Your task to perform on an android device: Open battery settings Image 0: 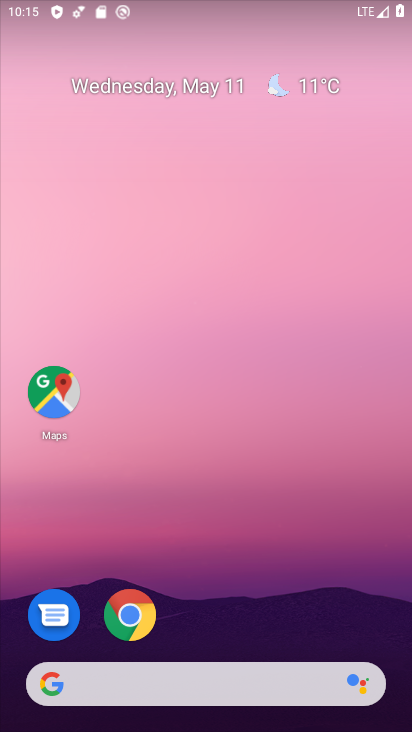
Step 0: click (310, 85)
Your task to perform on an android device: Open battery settings Image 1: 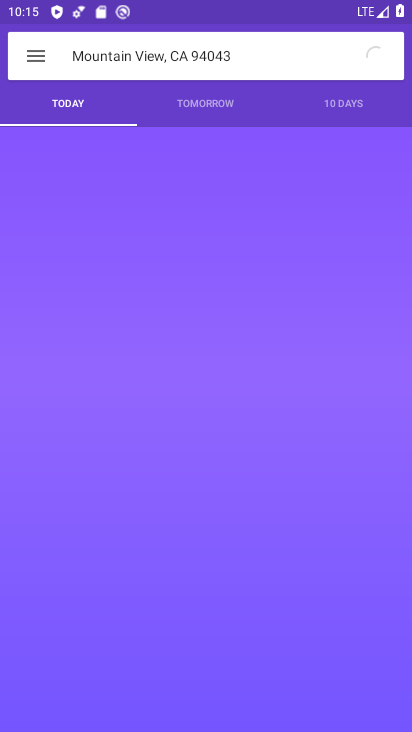
Step 1: press home button
Your task to perform on an android device: Open battery settings Image 2: 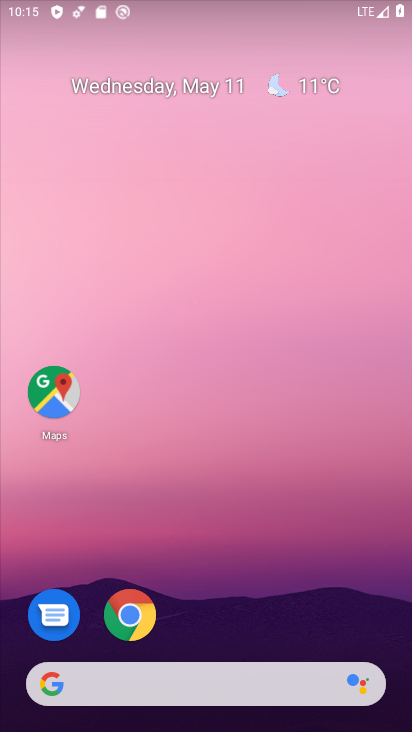
Step 2: drag from (225, 570) to (323, 120)
Your task to perform on an android device: Open battery settings Image 3: 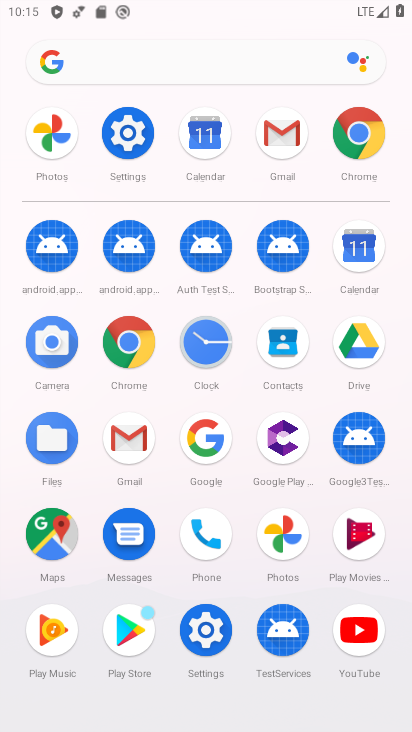
Step 3: click (130, 126)
Your task to perform on an android device: Open battery settings Image 4: 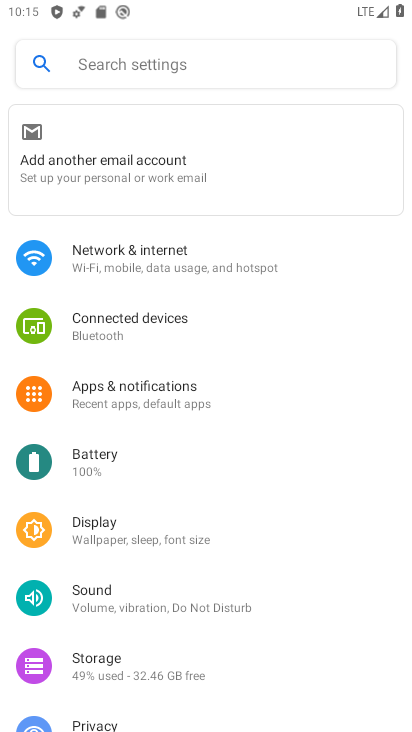
Step 4: drag from (167, 658) to (250, 193)
Your task to perform on an android device: Open battery settings Image 5: 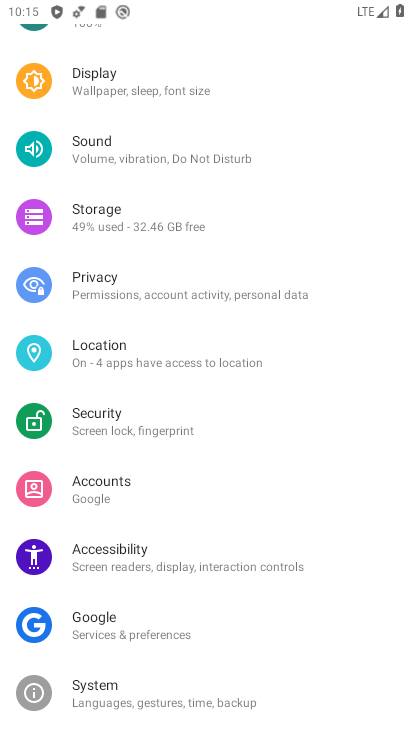
Step 5: drag from (89, 608) to (124, 731)
Your task to perform on an android device: Open battery settings Image 6: 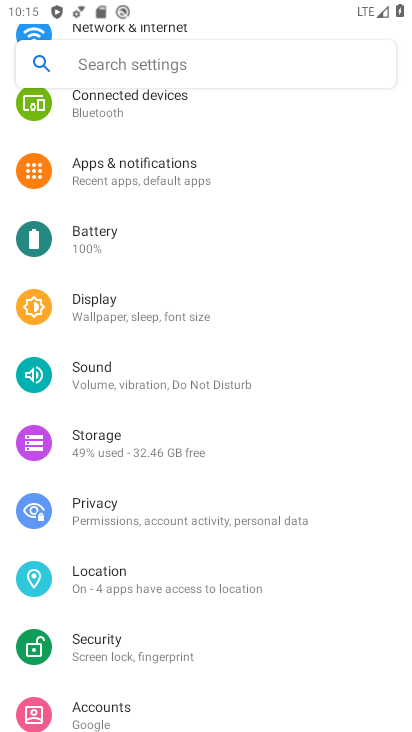
Step 6: click (110, 237)
Your task to perform on an android device: Open battery settings Image 7: 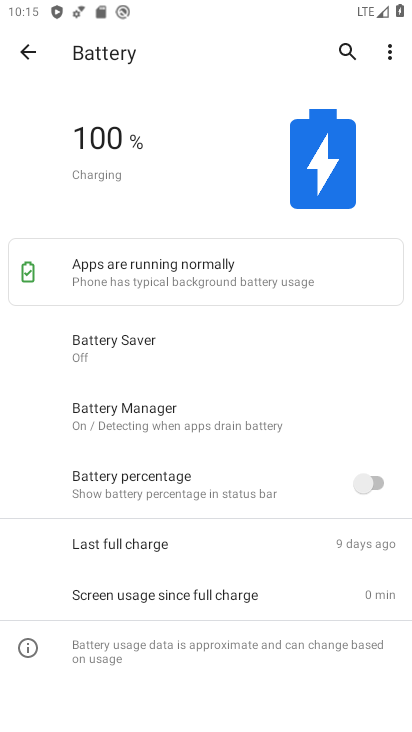
Step 7: task complete